Your task to perform on an android device: Open Wikipedia Image 0: 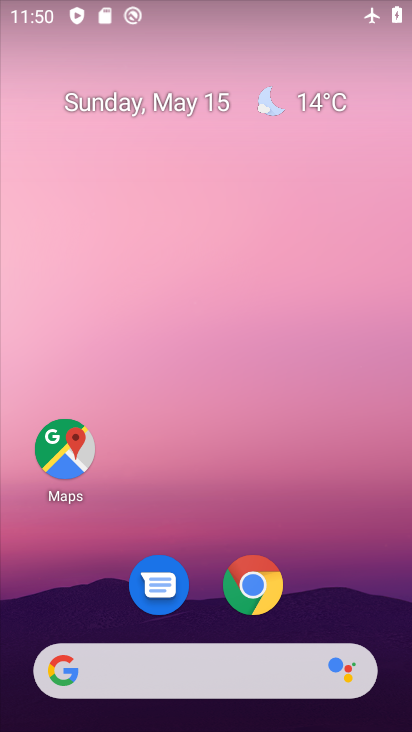
Step 0: click (255, 580)
Your task to perform on an android device: Open Wikipedia Image 1: 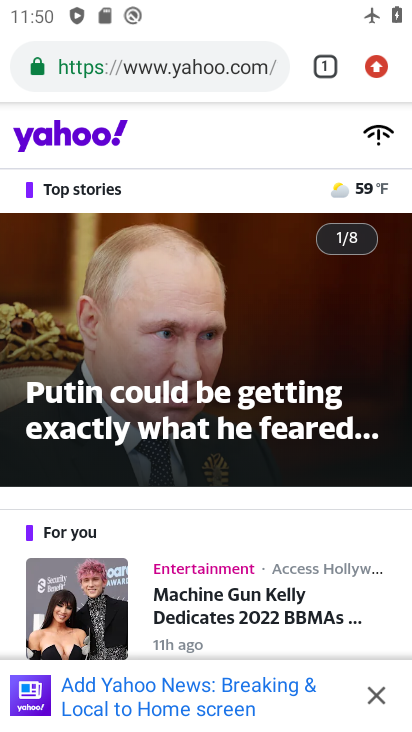
Step 1: click (375, 60)
Your task to perform on an android device: Open Wikipedia Image 2: 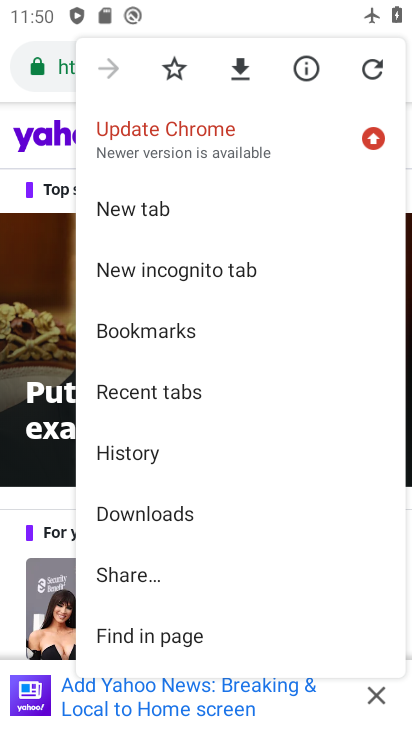
Step 2: click (189, 206)
Your task to perform on an android device: Open Wikipedia Image 3: 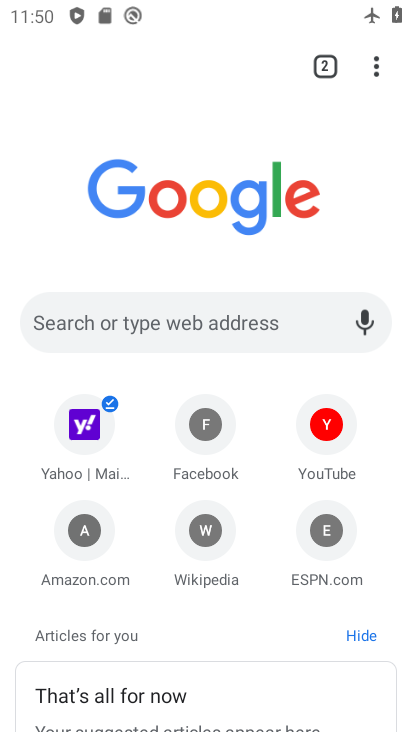
Step 3: click (206, 519)
Your task to perform on an android device: Open Wikipedia Image 4: 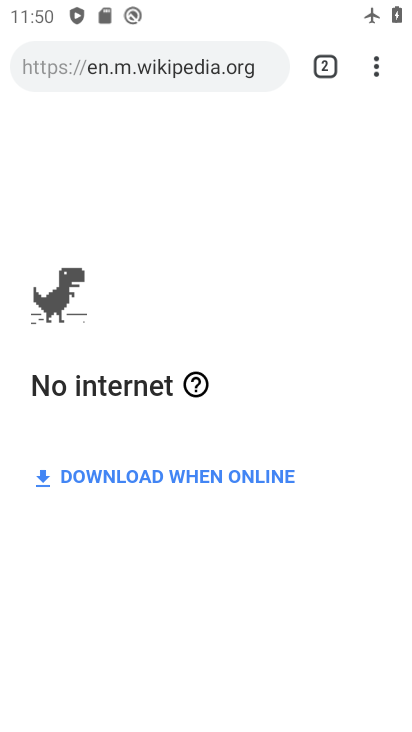
Step 4: task complete